Your task to perform on an android device: Go to display settings Image 0: 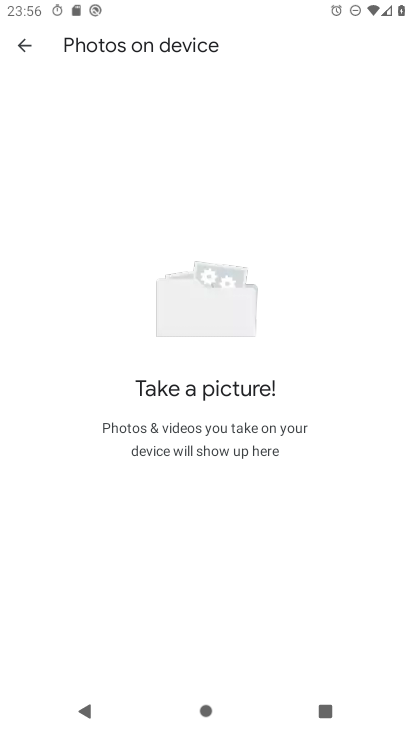
Step 0: press home button
Your task to perform on an android device: Go to display settings Image 1: 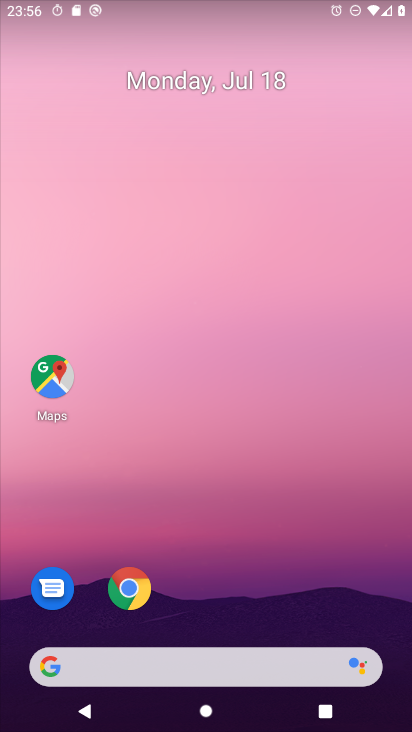
Step 1: drag from (224, 675) to (317, 239)
Your task to perform on an android device: Go to display settings Image 2: 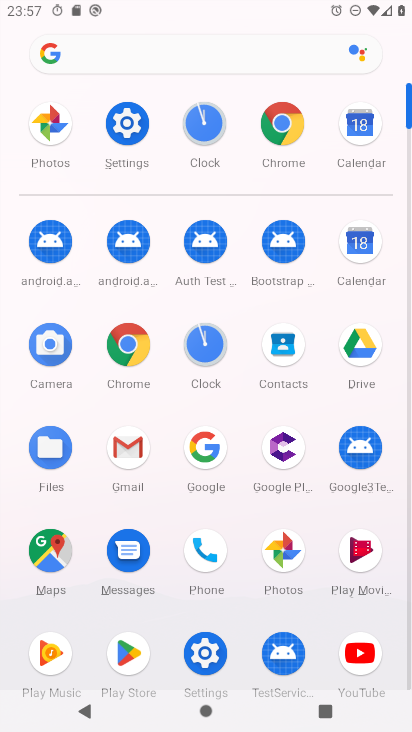
Step 2: click (130, 126)
Your task to perform on an android device: Go to display settings Image 3: 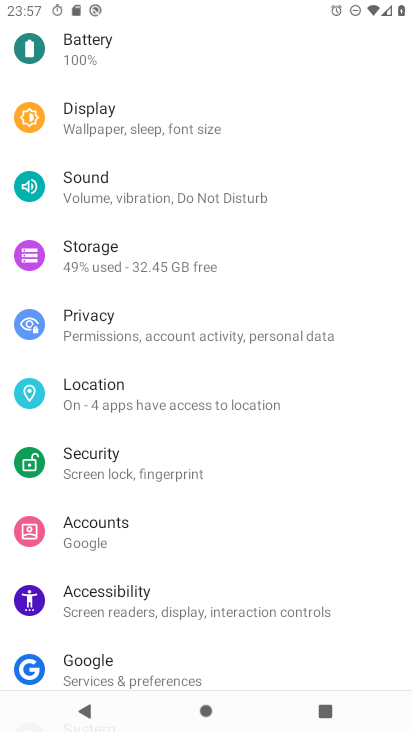
Step 3: click (104, 129)
Your task to perform on an android device: Go to display settings Image 4: 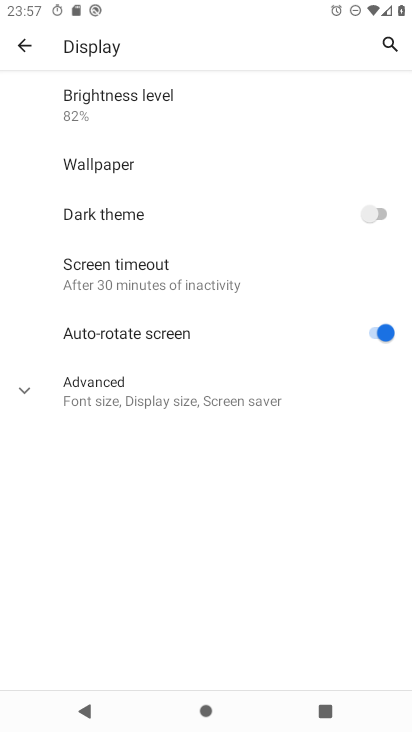
Step 4: task complete